Your task to perform on an android device: Open Amazon Image 0: 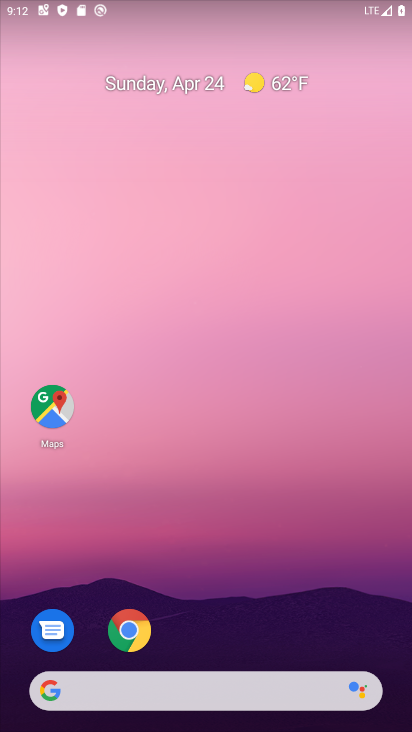
Step 0: drag from (249, 623) to (191, 22)
Your task to perform on an android device: Open Amazon Image 1: 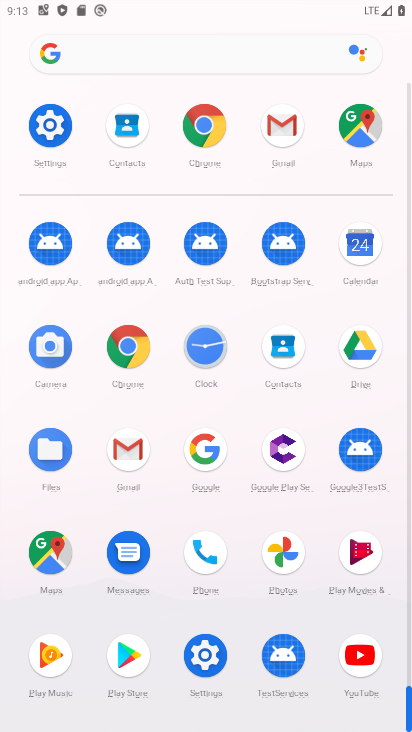
Step 1: click (123, 344)
Your task to perform on an android device: Open Amazon Image 2: 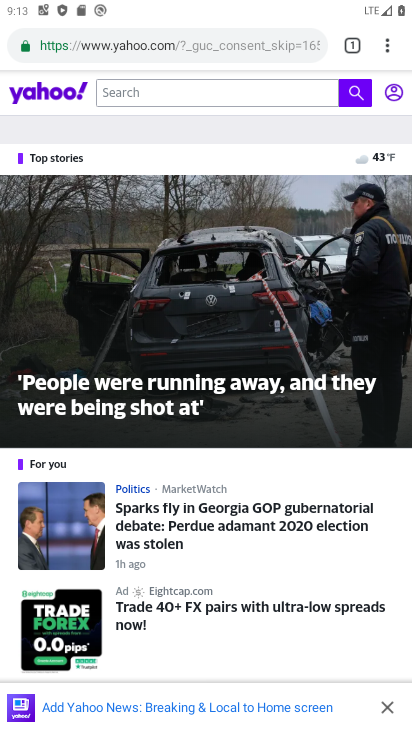
Step 2: click (238, 50)
Your task to perform on an android device: Open Amazon Image 3: 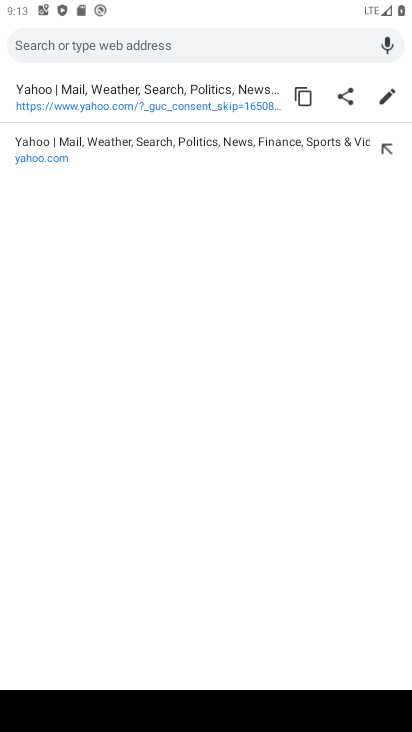
Step 3: type "Amazon"
Your task to perform on an android device: Open Amazon Image 4: 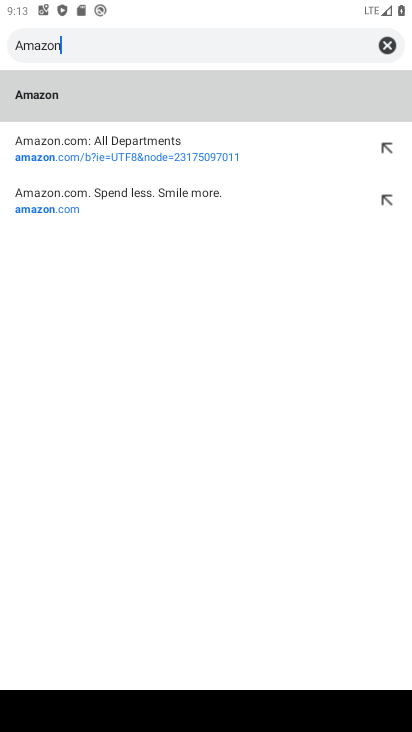
Step 4: click (115, 198)
Your task to perform on an android device: Open Amazon Image 5: 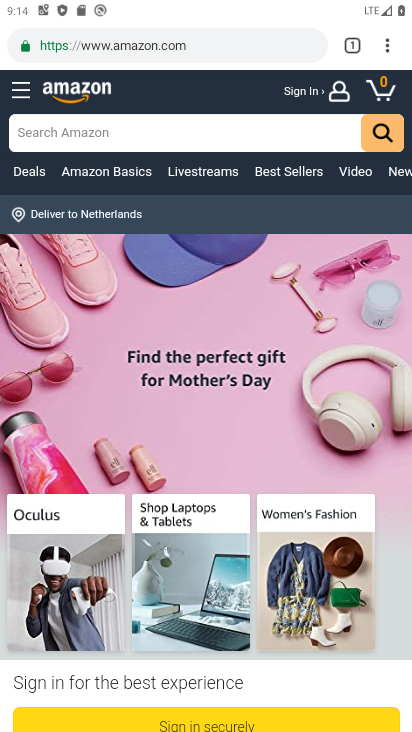
Step 5: task complete